Your task to perform on an android device: Clear the shopping cart on costco. Search for "razer blackwidow" on costco, select the first entry, add it to the cart, then select checkout. Image 0: 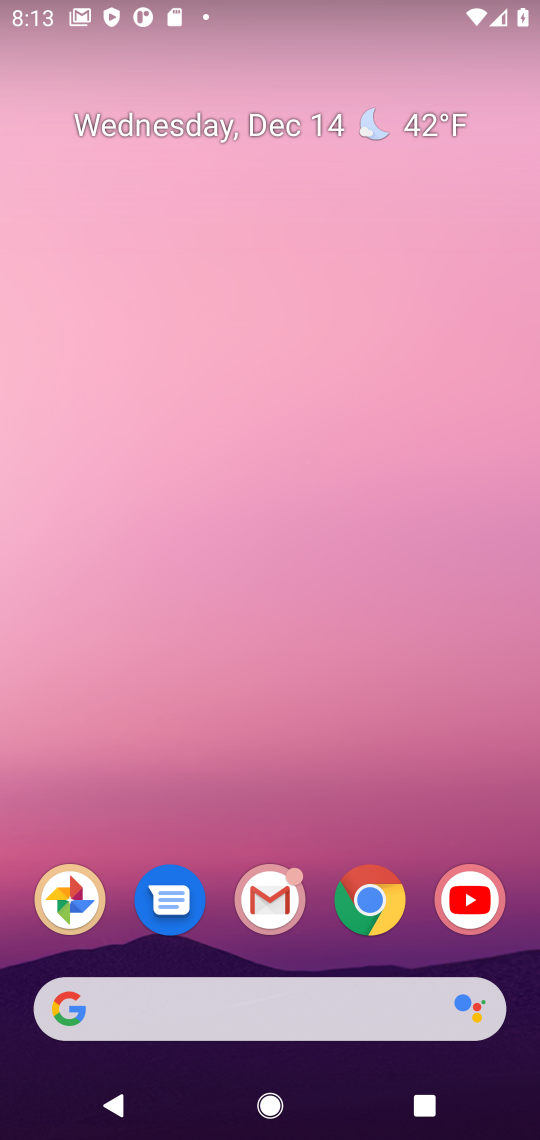
Step 0: click (390, 905)
Your task to perform on an android device: Clear the shopping cart on costco. Search for "razer blackwidow" on costco, select the first entry, add it to the cart, then select checkout. Image 1: 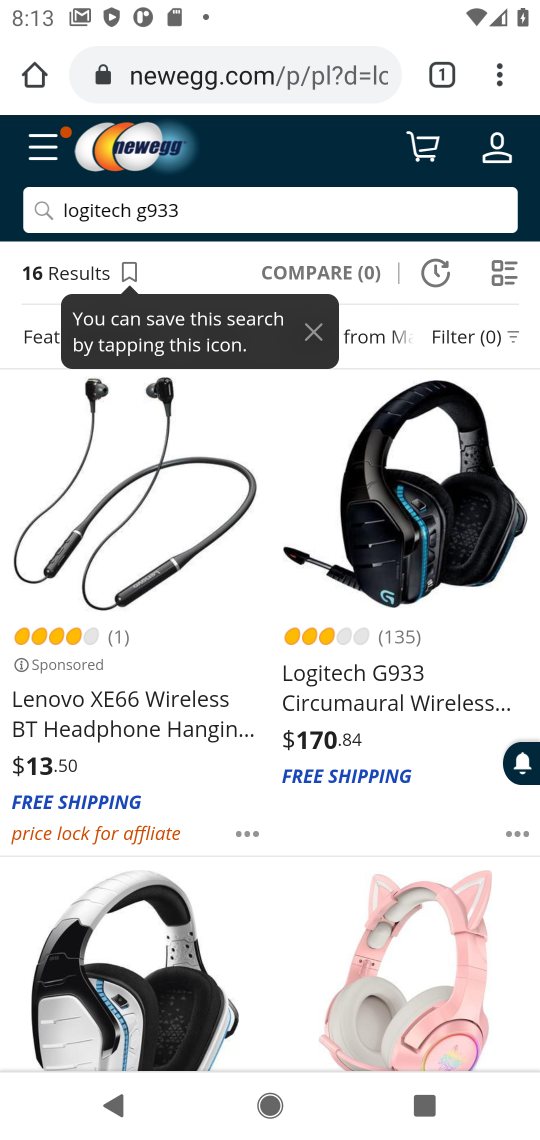
Step 1: click (185, 82)
Your task to perform on an android device: Clear the shopping cart on costco. Search for "razer blackwidow" on costco, select the first entry, add it to the cart, then select checkout. Image 2: 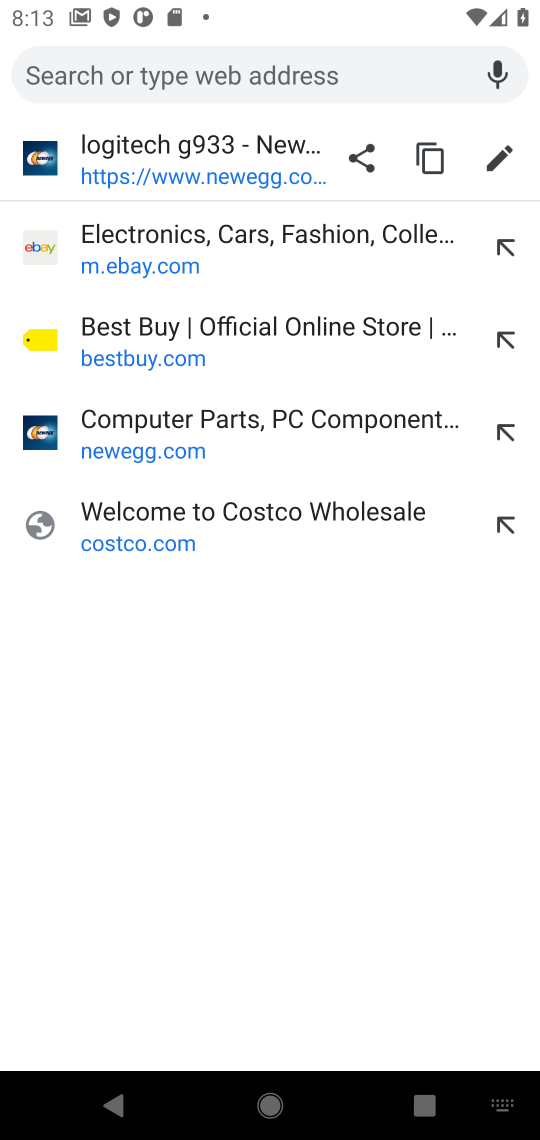
Step 2: click (105, 542)
Your task to perform on an android device: Clear the shopping cart on costco. Search for "razer blackwidow" on costco, select the first entry, add it to the cart, then select checkout. Image 3: 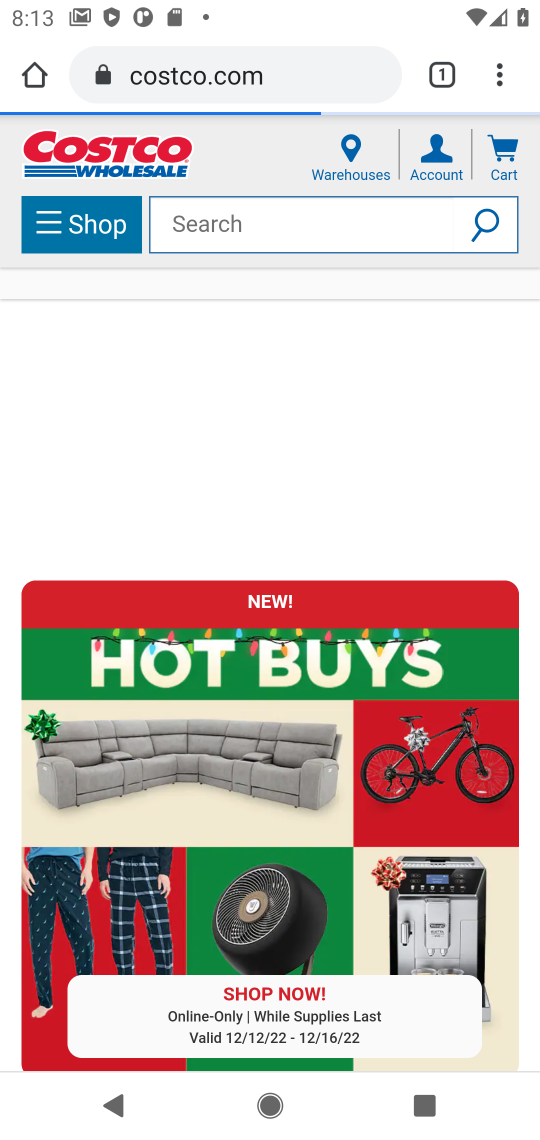
Step 3: click (497, 149)
Your task to perform on an android device: Clear the shopping cart on costco. Search for "razer blackwidow" on costco, select the first entry, add it to the cart, then select checkout. Image 4: 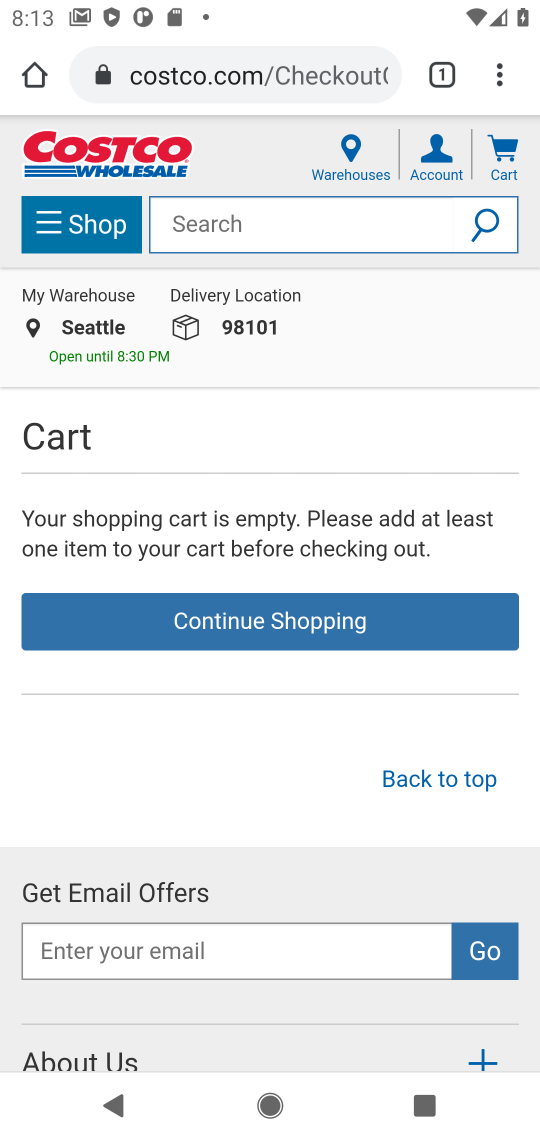
Step 4: click (289, 231)
Your task to perform on an android device: Clear the shopping cart on costco. Search for "razer blackwidow" on costco, select the first entry, add it to the cart, then select checkout. Image 5: 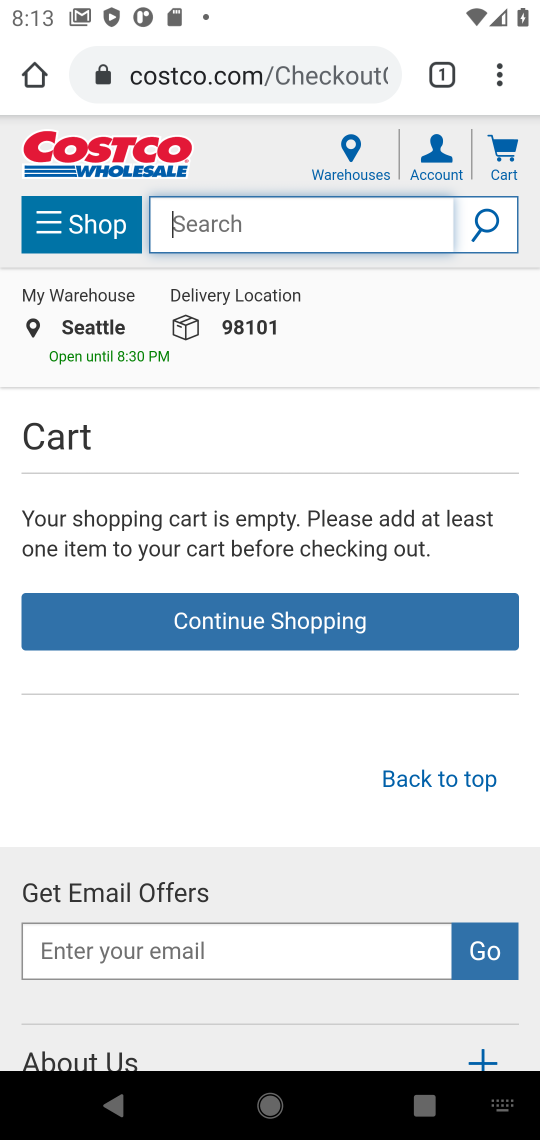
Step 5: type "razer blackwidow"
Your task to perform on an android device: Clear the shopping cart on costco. Search for "razer blackwidow" on costco, select the first entry, add it to the cart, then select checkout. Image 6: 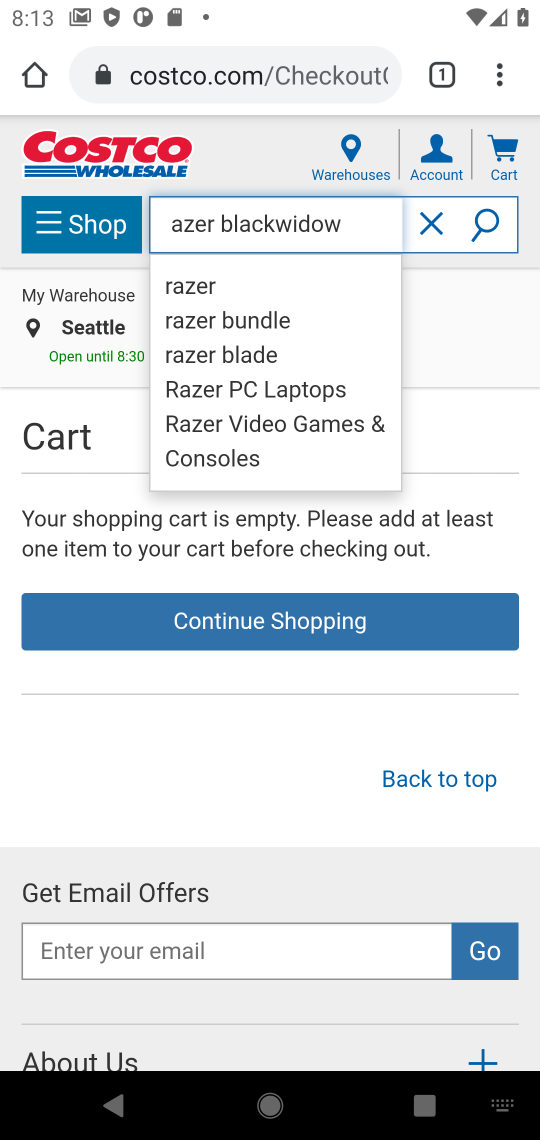
Step 6: click (489, 232)
Your task to perform on an android device: Clear the shopping cart on costco. Search for "razer blackwidow" on costco, select the first entry, add it to the cart, then select checkout. Image 7: 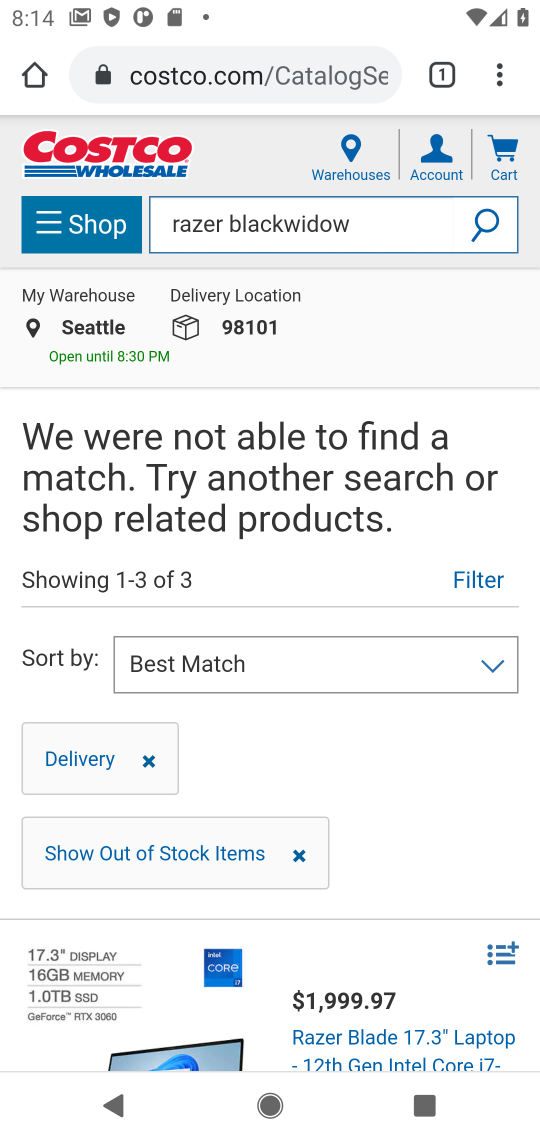
Step 7: task complete